Your task to perform on an android device: see sites visited before in the chrome app Image 0: 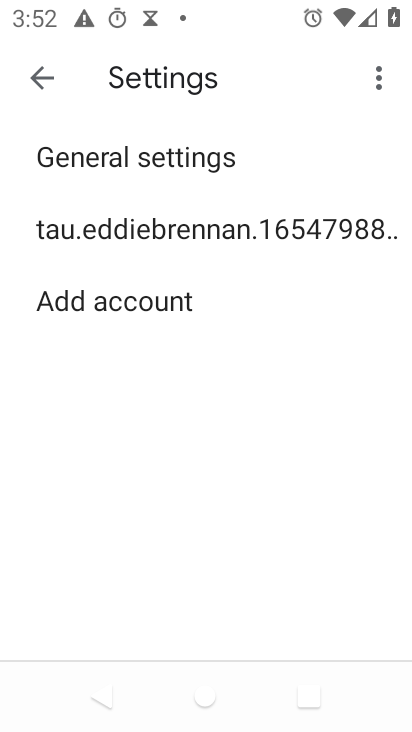
Step 0: press home button
Your task to perform on an android device: see sites visited before in the chrome app Image 1: 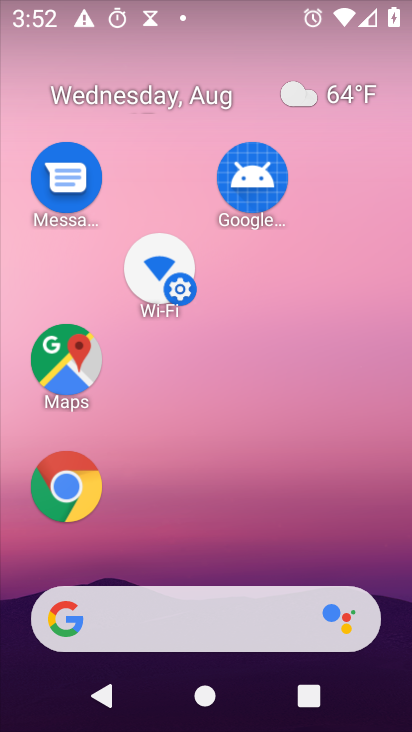
Step 1: click (60, 480)
Your task to perform on an android device: see sites visited before in the chrome app Image 2: 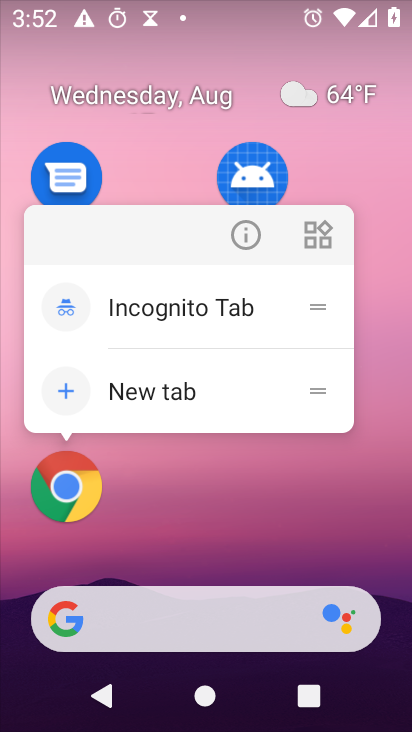
Step 2: click (60, 484)
Your task to perform on an android device: see sites visited before in the chrome app Image 3: 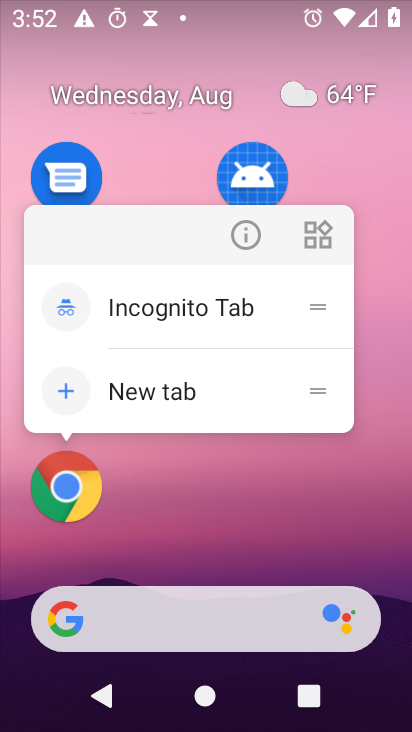
Step 3: click (60, 484)
Your task to perform on an android device: see sites visited before in the chrome app Image 4: 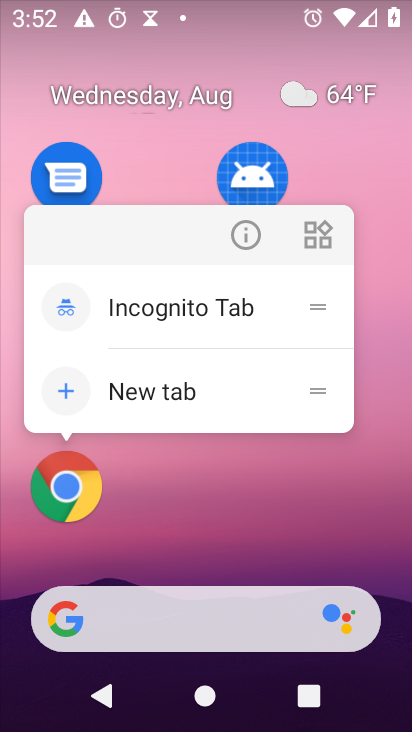
Step 4: click (60, 484)
Your task to perform on an android device: see sites visited before in the chrome app Image 5: 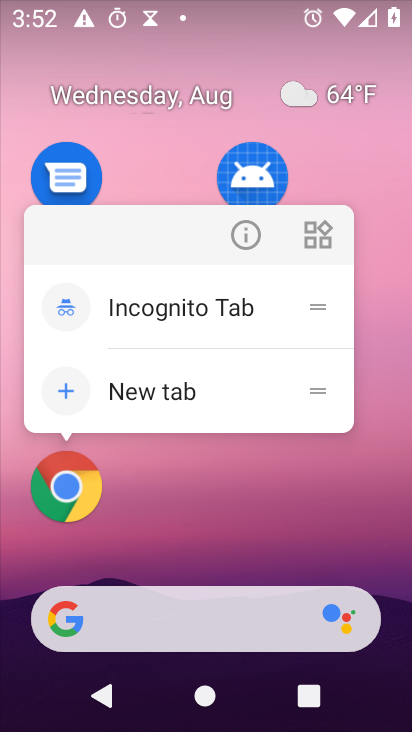
Step 5: click (60, 484)
Your task to perform on an android device: see sites visited before in the chrome app Image 6: 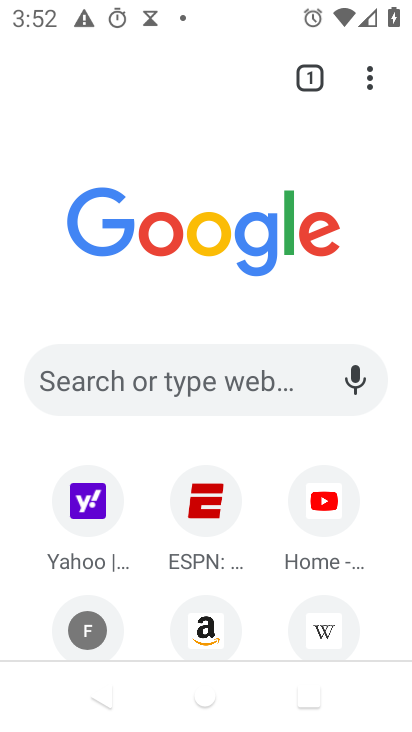
Step 6: task complete